Your task to perform on an android device: What is the recent news? Image 0: 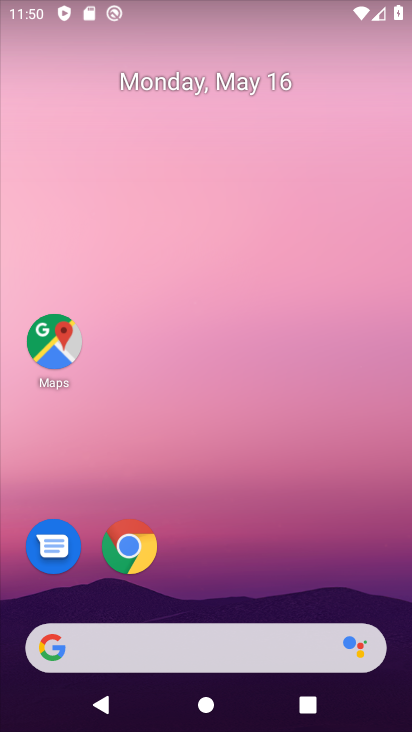
Step 0: drag from (9, 184) to (365, 241)
Your task to perform on an android device: What is the recent news? Image 1: 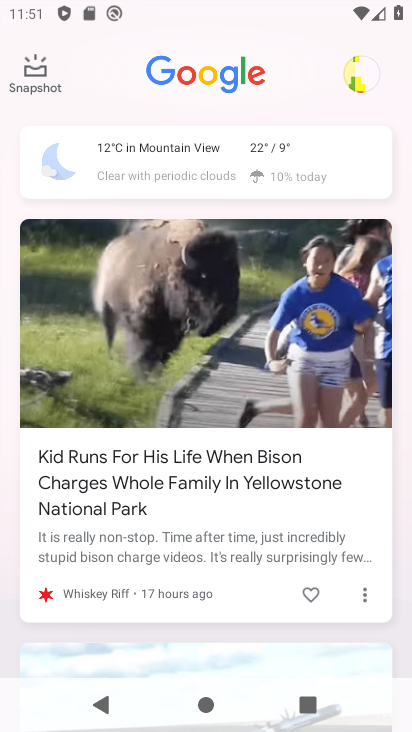
Step 1: task complete